Your task to perform on an android device: Go to network settings Image 0: 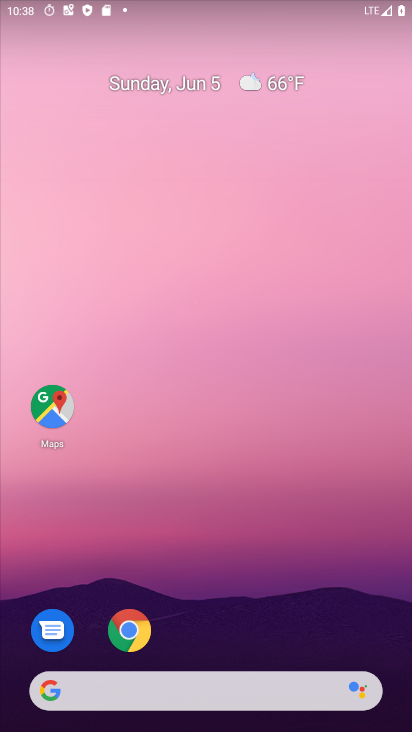
Step 0: drag from (176, 722) to (179, 113)
Your task to perform on an android device: Go to network settings Image 1: 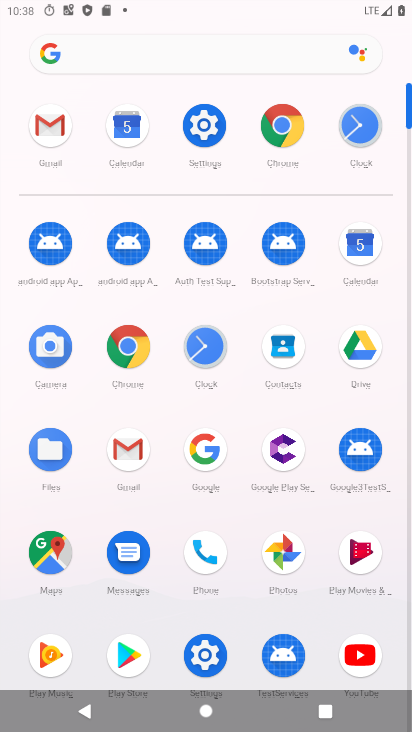
Step 1: click (204, 117)
Your task to perform on an android device: Go to network settings Image 2: 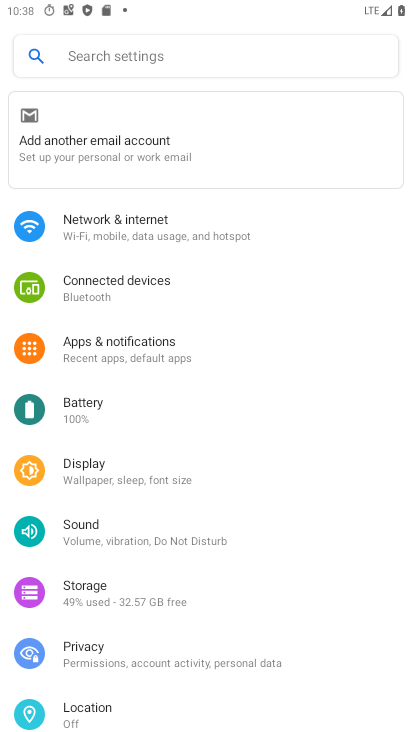
Step 2: click (94, 222)
Your task to perform on an android device: Go to network settings Image 3: 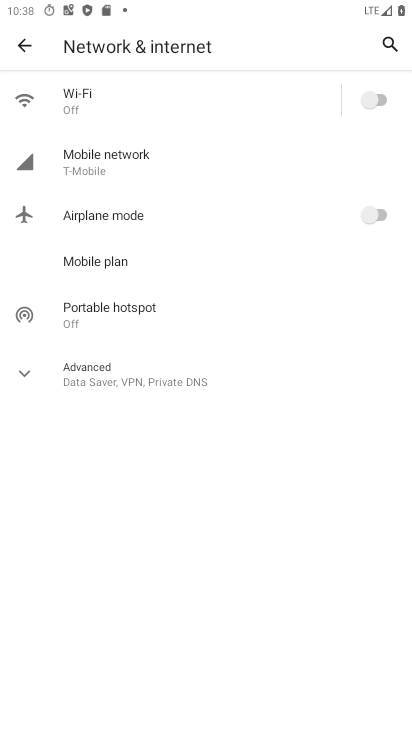
Step 3: click (102, 156)
Your task to perform on an android device: Go to network settings Image 4: 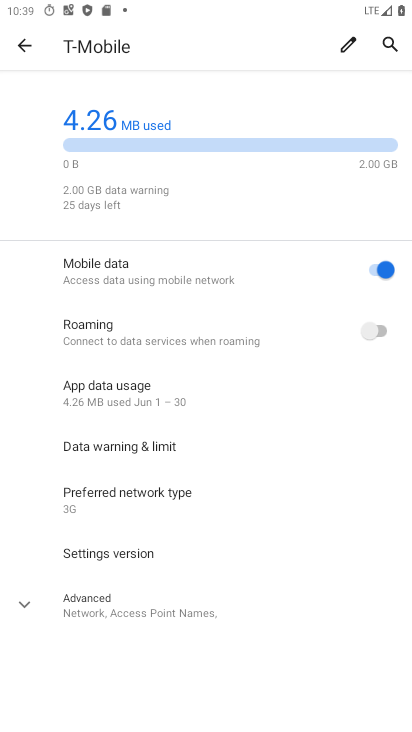
Step 4: task complete